Your task to perform on an android device: change the clock style Image 0: 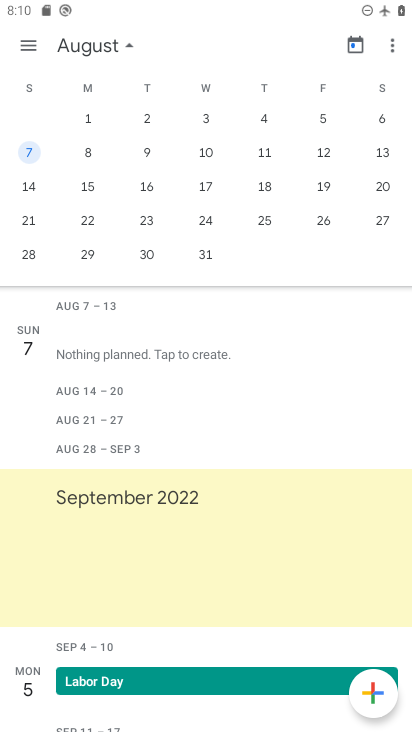
Step 0: press home button
Your task to perform on an android device: change the clock style Image 1: 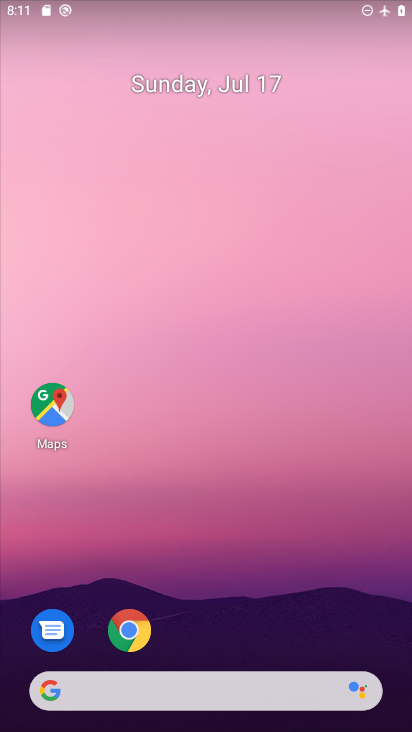
Step 1: drag from (345, 620) to (101, 45)
Your task to perform on an android device: change the clock style Image 2: 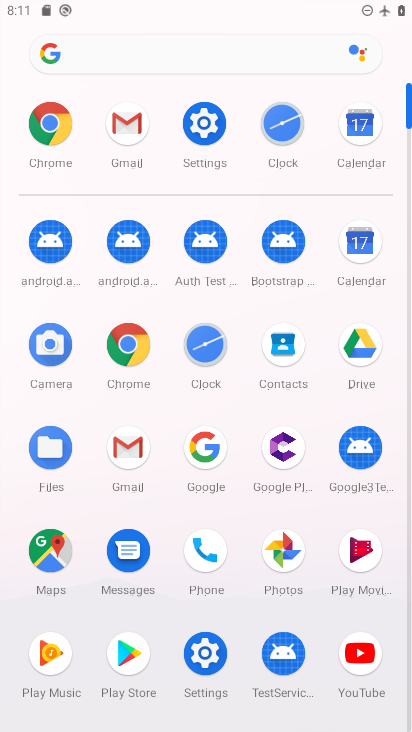
Step 2: click (306, 133)
Your task to perform on an android device: change the clock style Image 3: 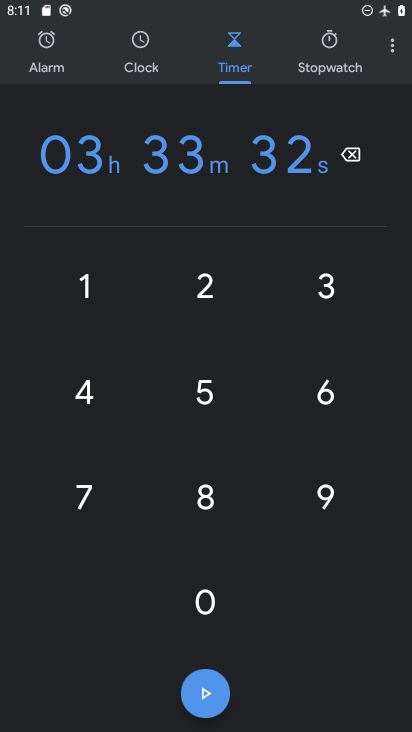
Step 3: click (388, 49)
Your task to perform on an android device: change the clock style Image 4: 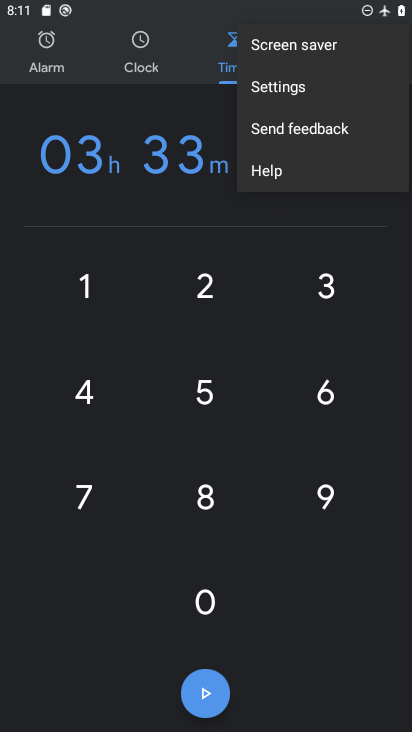
Step 4: click (284, 88)
Your task to perform on an android device: change the clock style Image 5: 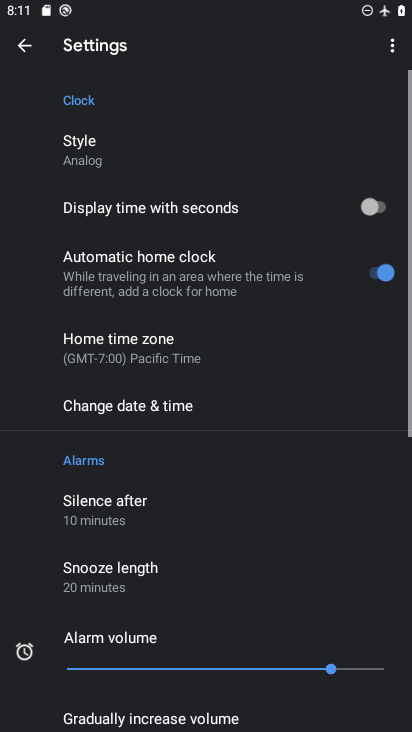
Step 5: click (119, 152)
Your task to perform on an android device: change the clock style Image 6: 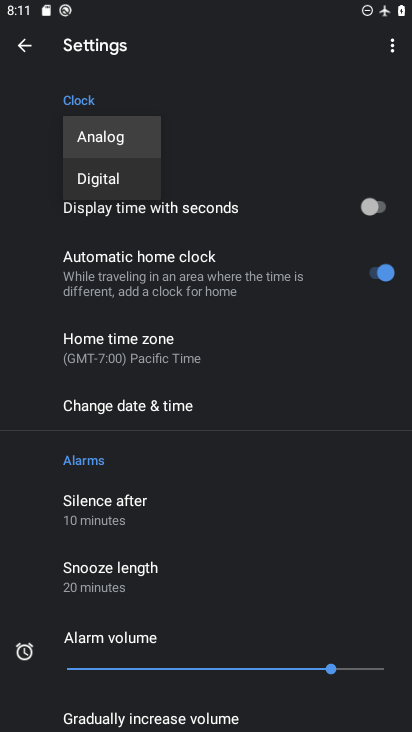
Step 6: click (103, 172)
Your task to perform on an android device: change the clock style Image 7: 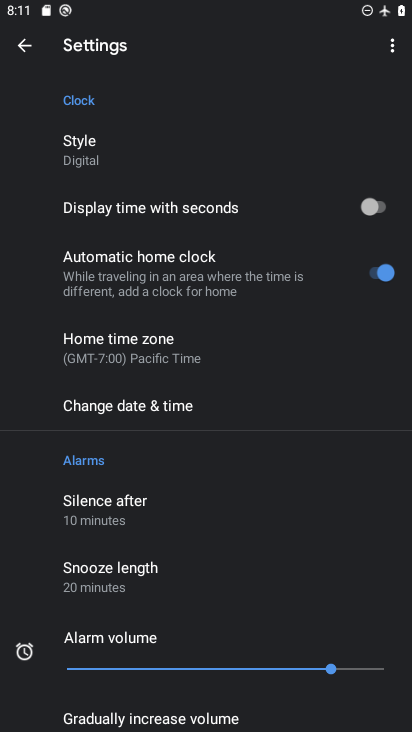
Step 7: task complete